Your task to perform on an android device: turn off location history Image 0: 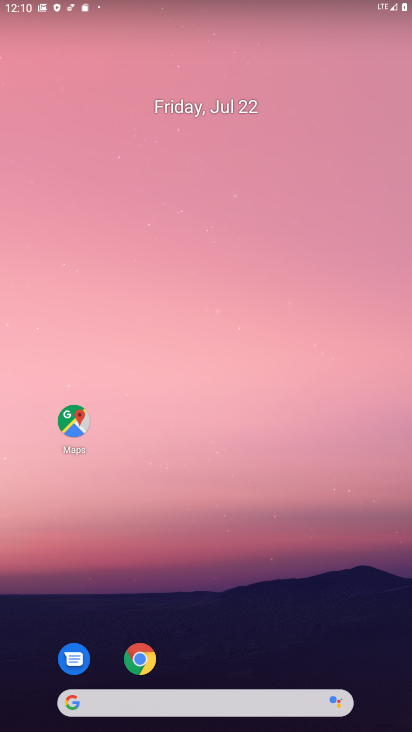
Step 0: drag from (202, 669) to (210, 124)
Your task to perform on an android device: turn off location history Image 1: 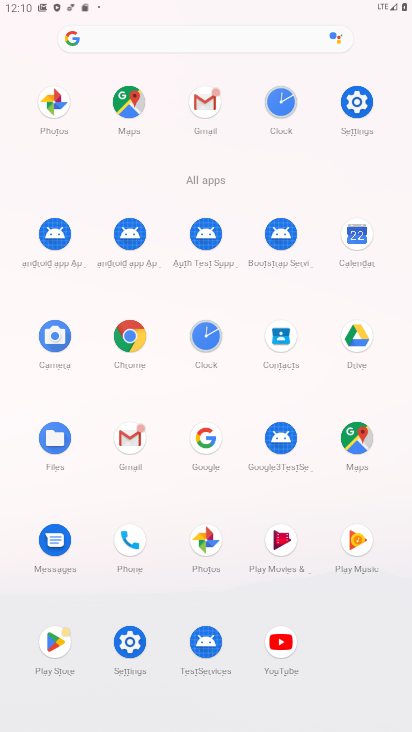
Step 1: click (347, 125)
Your task to perform on an android device: turn off location history Image 2: 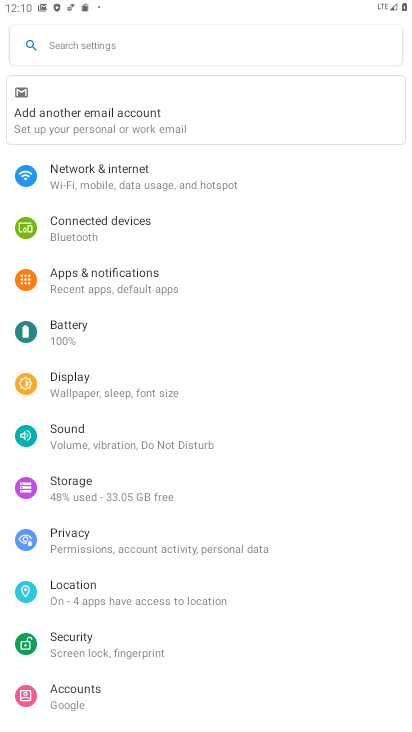
Step 2: click (136, 595)
Your task to perform on an android device: turn off location history Image 3: 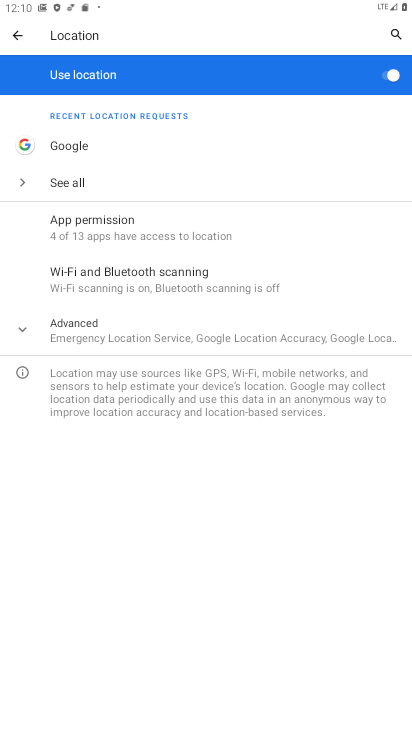
Step 3: click (138, 327)
Your task to perform on an android device: turn off location history Image 4: 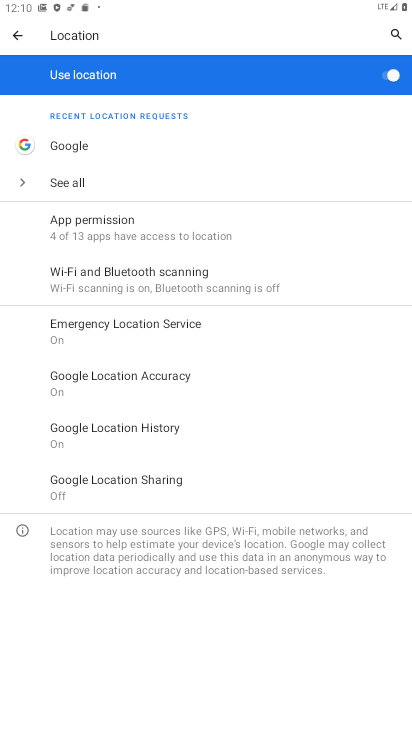
Step 4: click (144, 445)
Your task to perform on an android device: turn off location history Image 5: 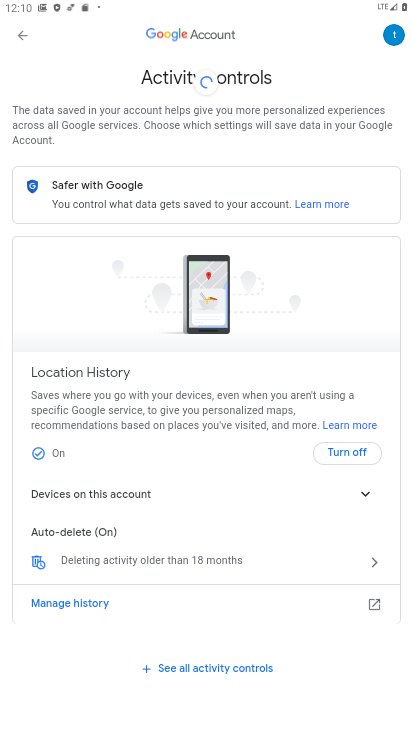
Step 5: click (338, 444)
Your task to perform on an android device: turn off location history Image 6: 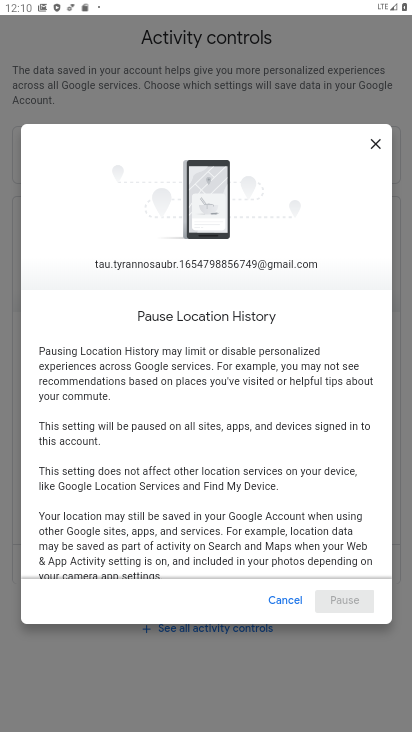
Step 6: drag from (293, 401) to (289, 122)
Your task to perform on an android device: turn off location history Image 7: 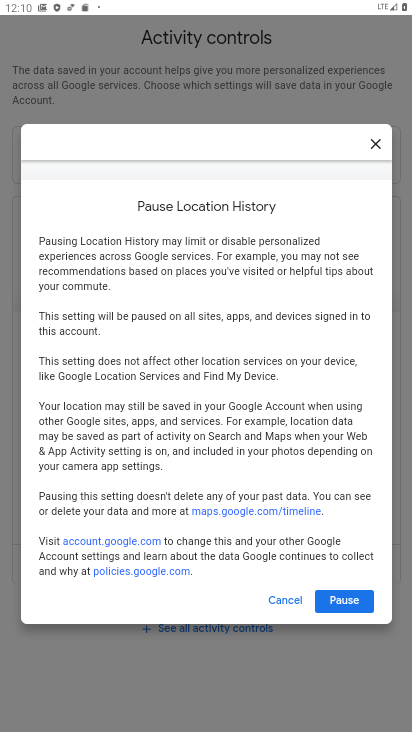
Step 7: click (333, 596)
Your task to perform on an android device: turn off location history Image 8: 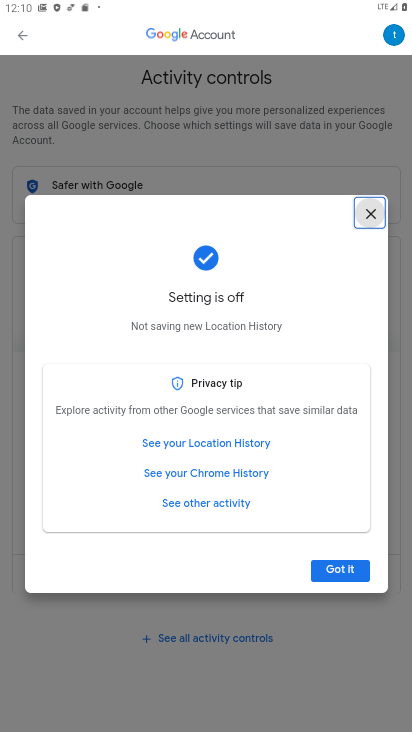
Step 8: click (364, 563)
Your task to perform on an android device: turn off location history Image 9: 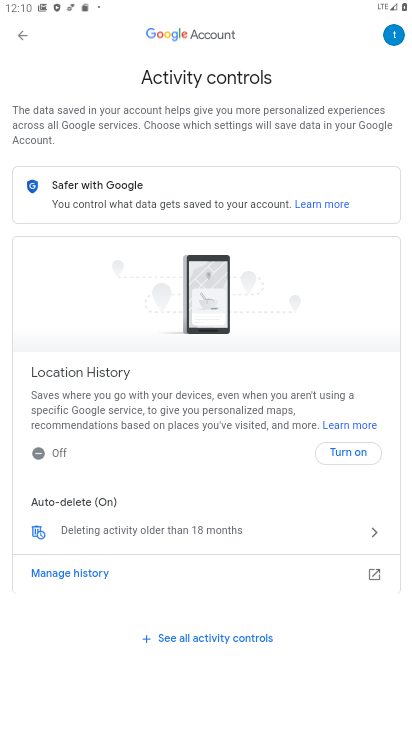
Step 9: task complete